Your task to perform on an android device: turn on notifications settings in the gmail app Image 0: 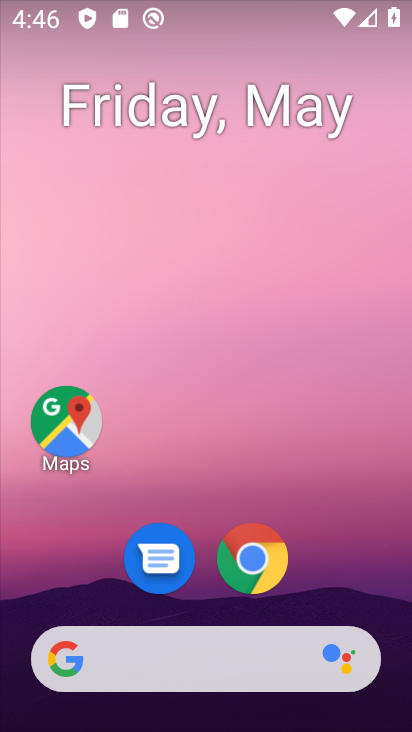
Step 0: drag from (349, 588) to (324, 112)
Your task to perform on an android device: turn on notifications settings in the gmail app Image 1: 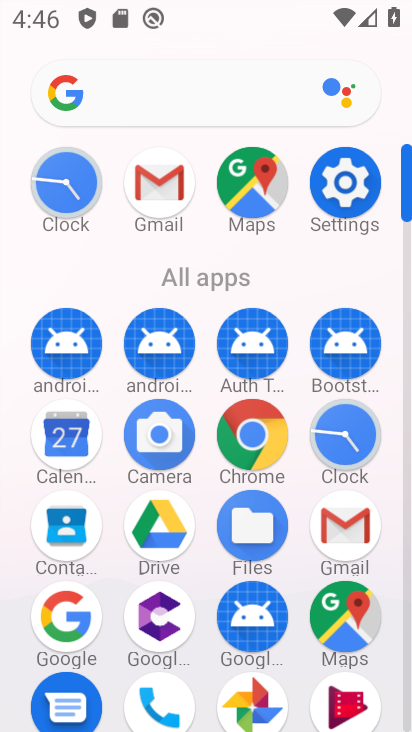
Step 1: click (171, 210)
Your task to perform on an android device: turn on notifications settings in the gmail app Image 2: 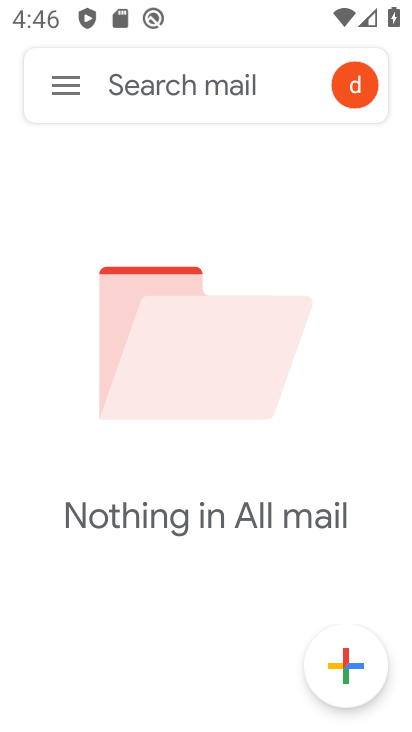
Step 2: click (66, 91)
Your task to perform on an android device: turn on notifications settings in the gmail app Image 3: 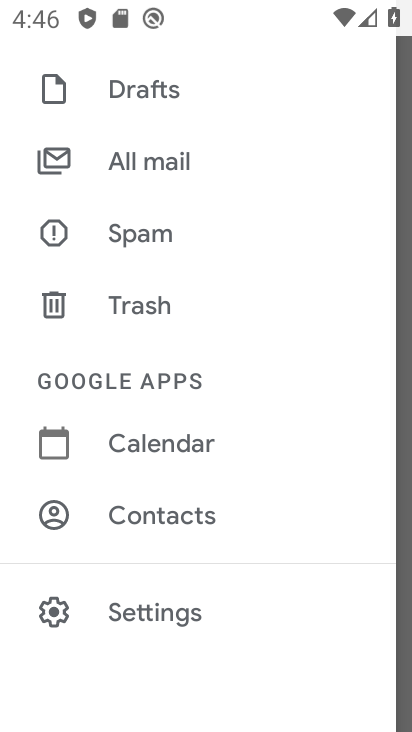
Step 3: click (176, 612)
Your task to perform on an android device: turn on notifications settings in the gmail app Image 4: 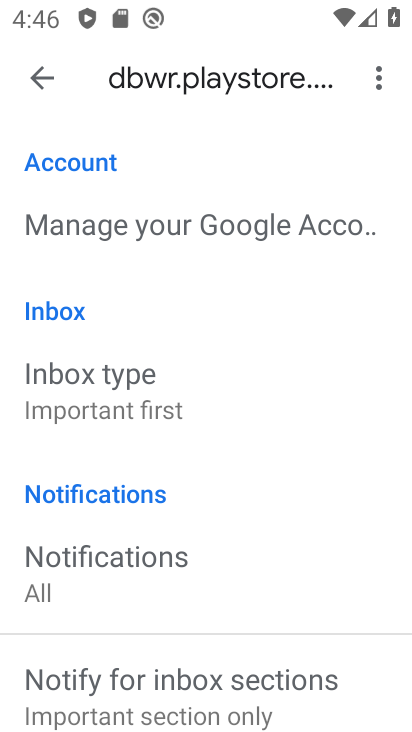
Step 4: drag from (266, 704) to (213, 158)
Your task to perform on an android device: turn on notifications settings in the gmail app Image 5: 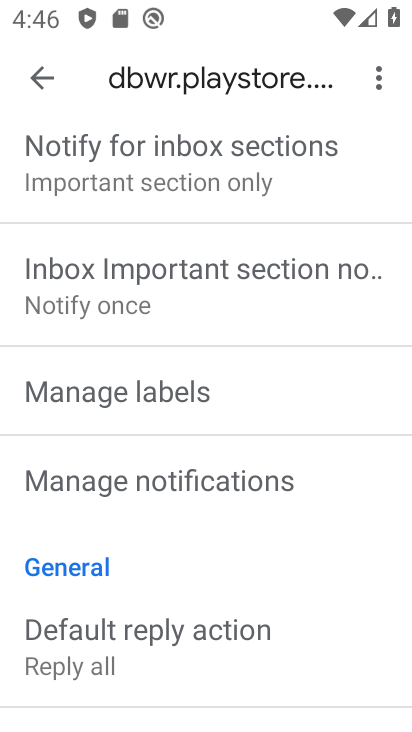
Step 5: click (254, 482)
Your task to perform on an android device: turn on notifications settings in the gmail app Image 6: 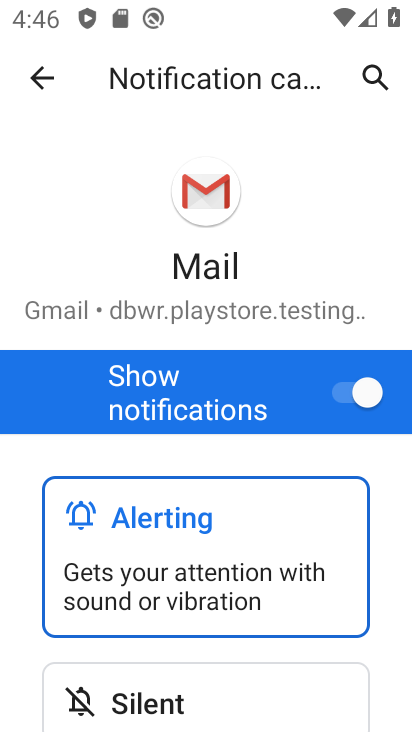
Step 6: drag from (394, 707) to (331, 131)
Your task to perform on an android device: turn on notifications settings in the gmail app Image 7: 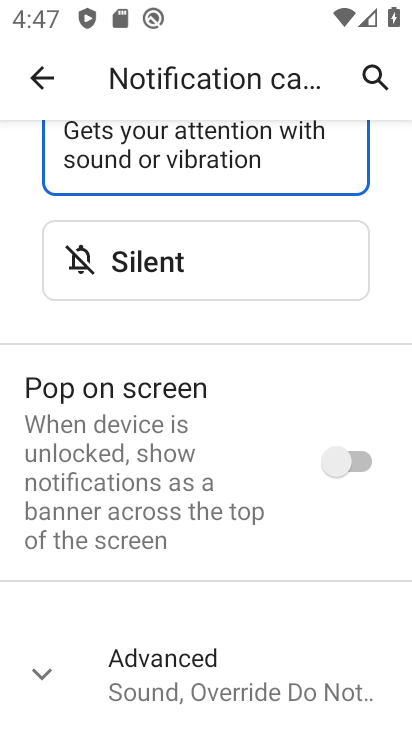
Step 7: click (338, 475)
Your task to perform on an android device: turn on notifications settings in the gmail app Image 8: 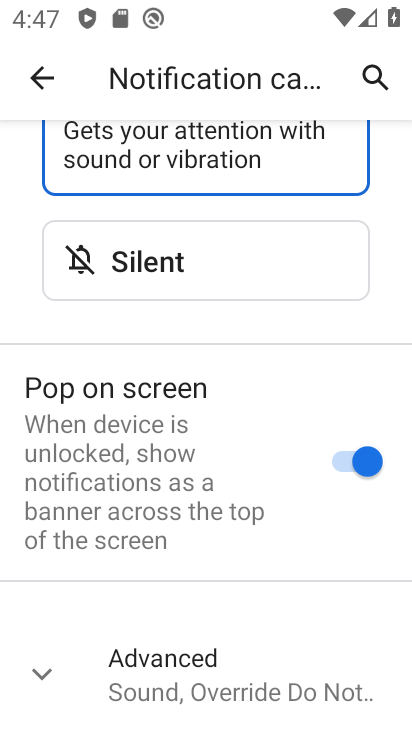
Step 8: task complete